Your task to perform on an android device: Open Chrome and go to the settings page Image 0: 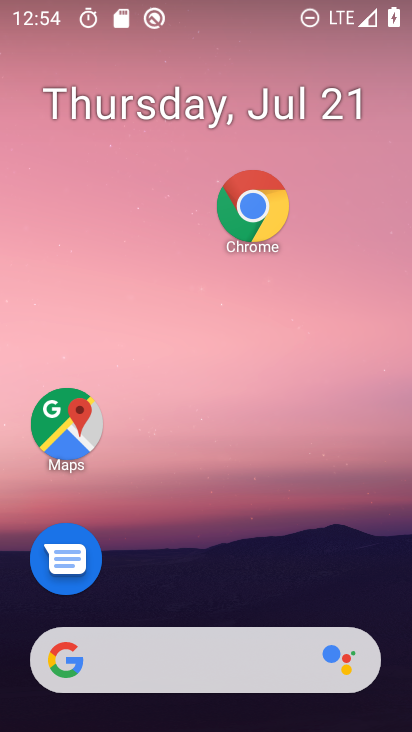
Step 0: drag from (213, 623) to (297, 16)
Your task to perform on an android device: Open Chrome and go to the settings page Image 1: 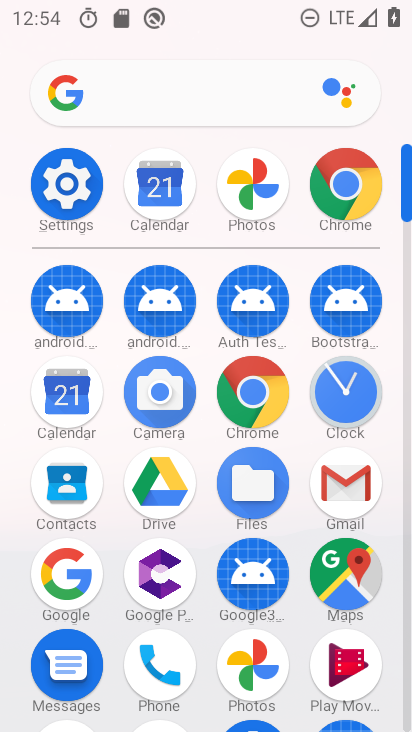
Step 1: click (82, 210)
Your task to perform on an android device: Open Chrome and go to the settings page Image 2: 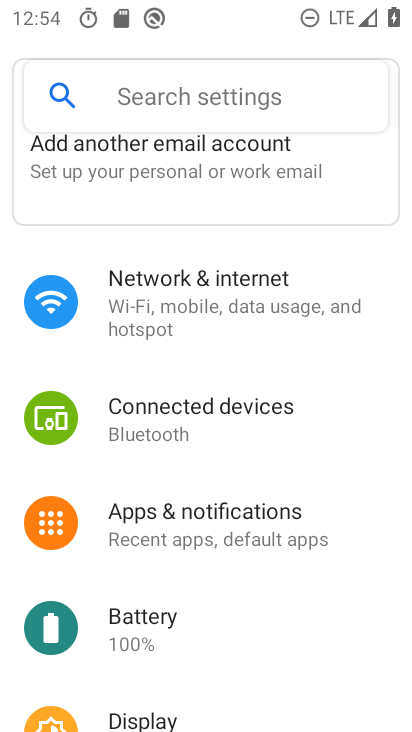
Step 2: drag from (190, 565) to (224, 218)
Your task to perform on an android device: Open Chrome and go to the settings page Image 3: 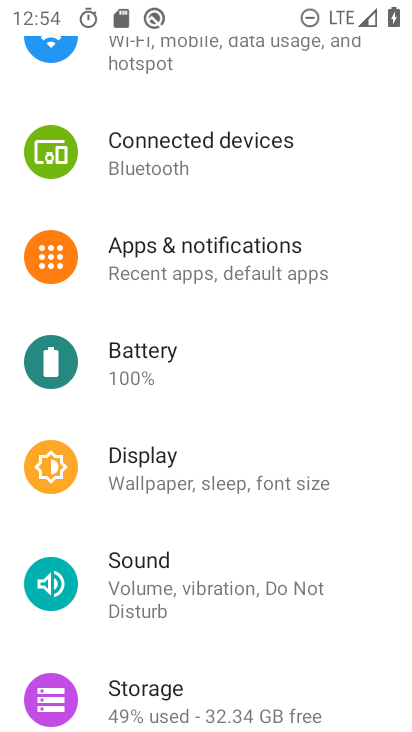
Step 3: press home button
Your task to perform on an android device: Open Chrome and go to the settings page Image 4: 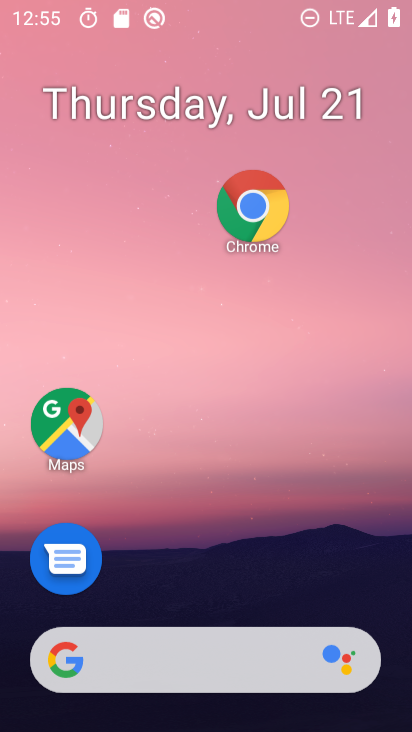
Step 4: drag from (212, 616) to (303, 25)
Your task to perform on an android device: Open Chrome and go to the settings page Image 5: 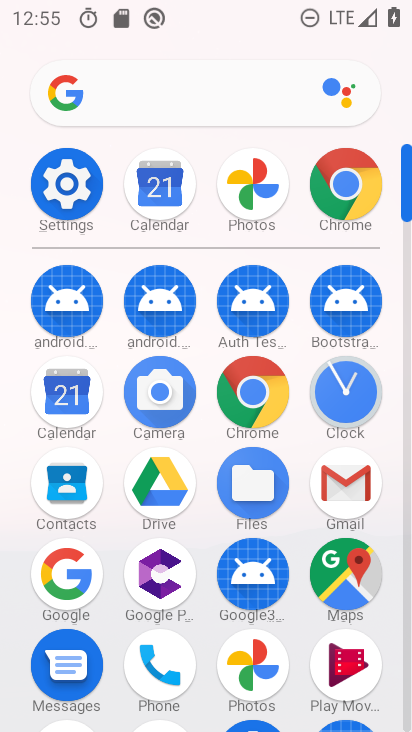
Step 5: drag from (251, 521) to (282, 236)
Your task to perform on an android device: Open Chrome and go to the settings page Image 6: 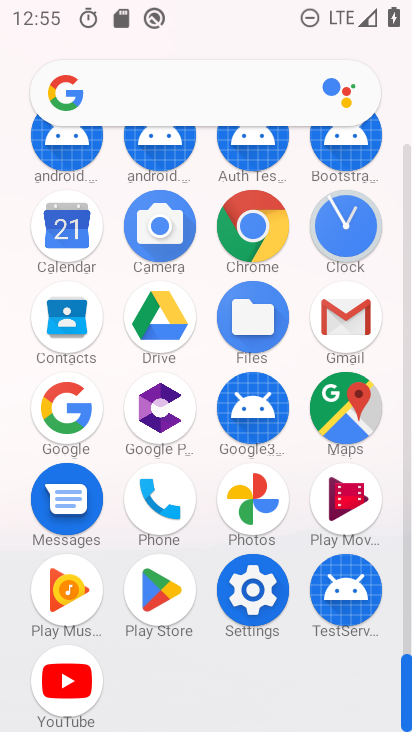
Step 6: click (258, 254)
Your task to perform on an android device: Open Chrome and go to the settings page Image 7: 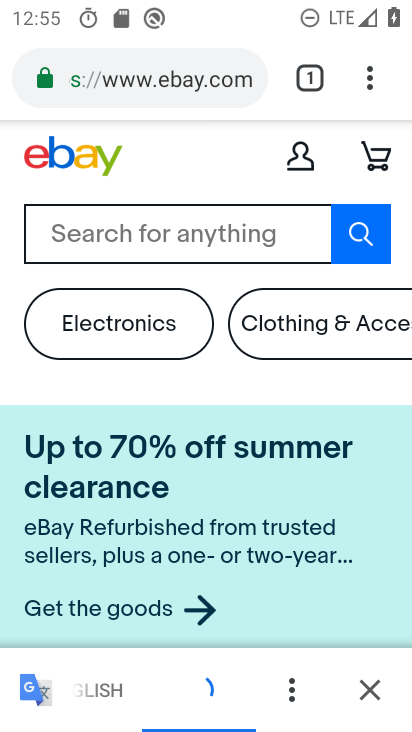
Step 7: click (369, 89)
Your task to perform on an android device: Open Chrome and go to the settings page Image 8: 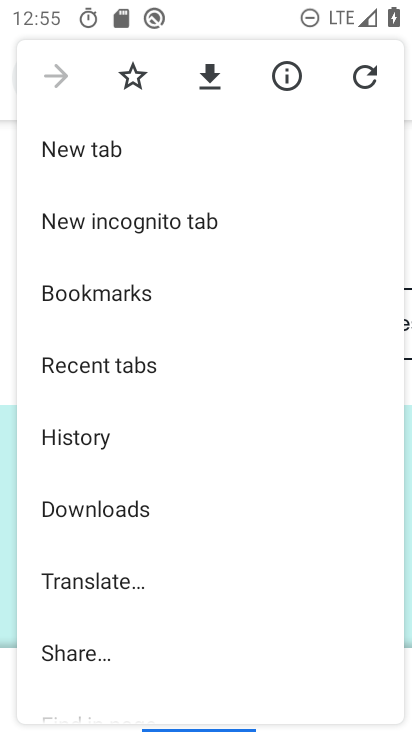
Step 8: drag from (184, 594) to (190, 103)
Your task to perform on an android device: Open Chrome and go to the settings page Image 9: 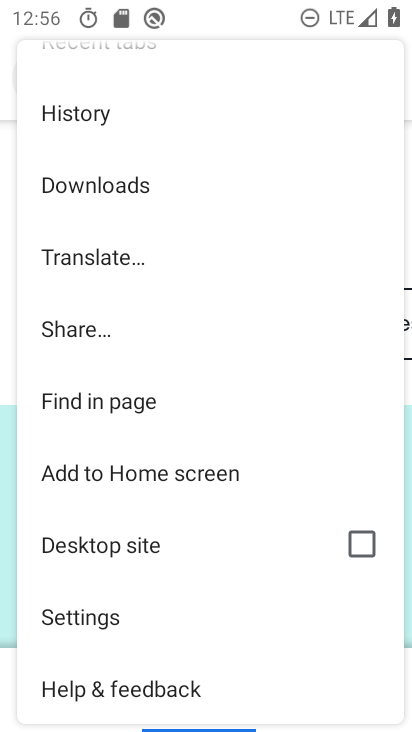
Step 9: click (98, 622)
Your task to perform on an android device: Open Chrome and go to the settings page Image 10: 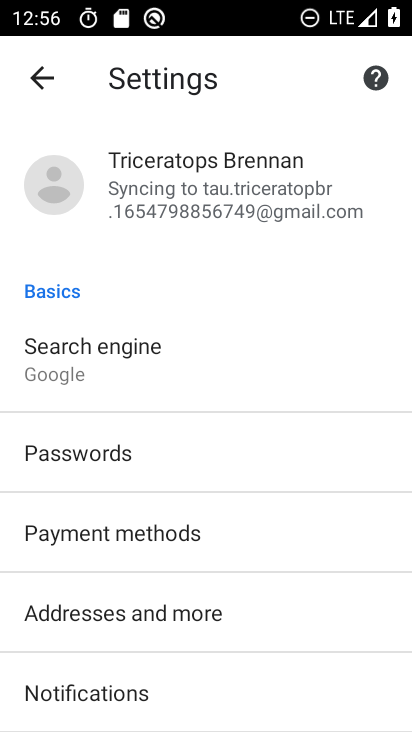
Step 10: task complete